Your task to perform on an android device: Clear all items from cart on bestbuy.com. Search for "usb-c to usb-a" on bestbuy.com, select the first entry, add it to the cart, then select checkout. Image 0: 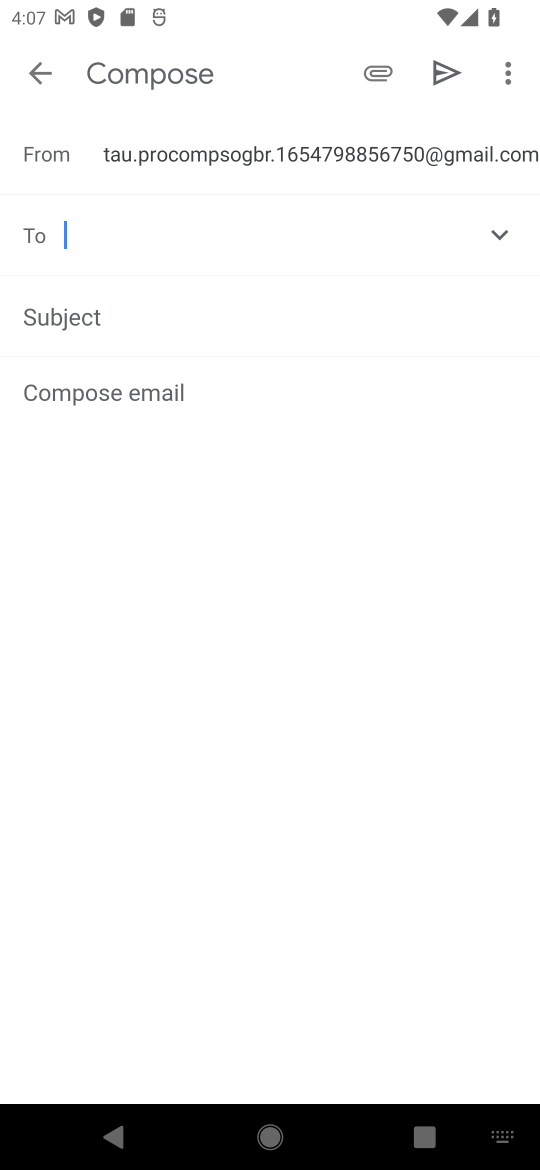
Step 0: press home button
Your task to perform on an android device: Clear all items from cart on bestbuy.com. Search for "usb-c to usb-a" on bestbuy.com, select the first entry, add it to the cart, then select checkout. Image 1: 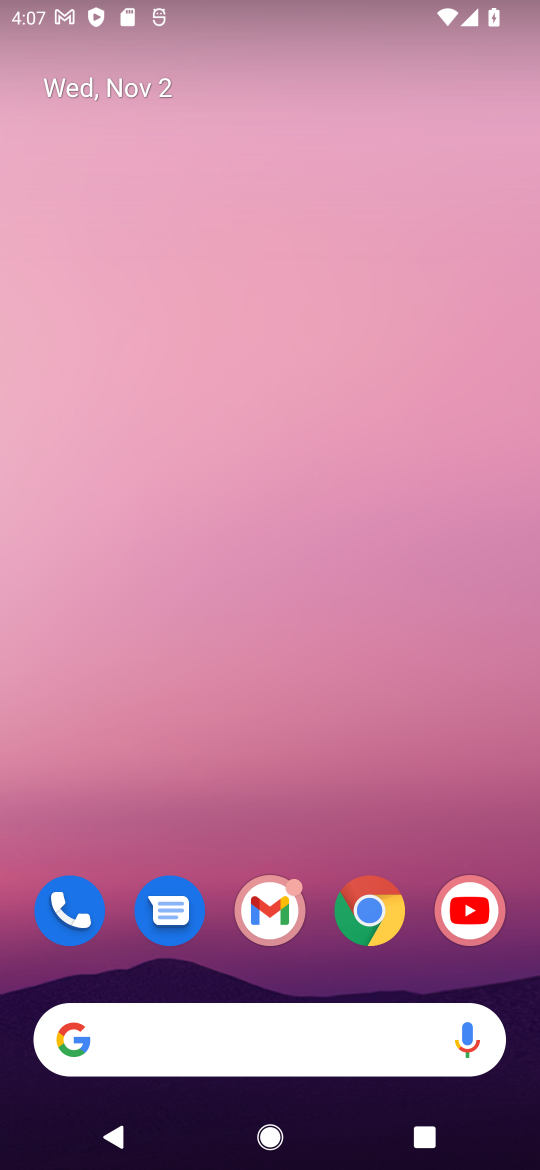
Step 1: click (375, 910)
Your task to perform on an android device: Clear all items from cart on bestbuy.com. Search for "usb-c to usb-a" on bestbuy.com, select the first entry, add it to the cart, then select checkout. Image 2: 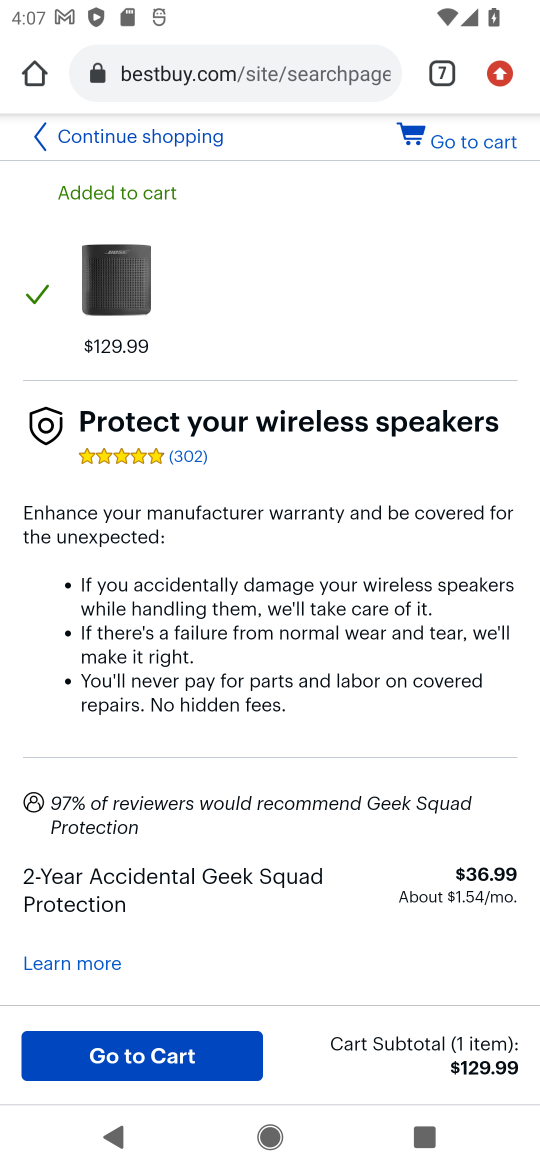
Step 2: click (435, 78)
Your task to perform on an android device: Clear all items from cart on bestbuy.com. Search for "usb-c to usb-a" on bestbuy.com, select the first entry, add it to the cart, then select checkout. Image 3: 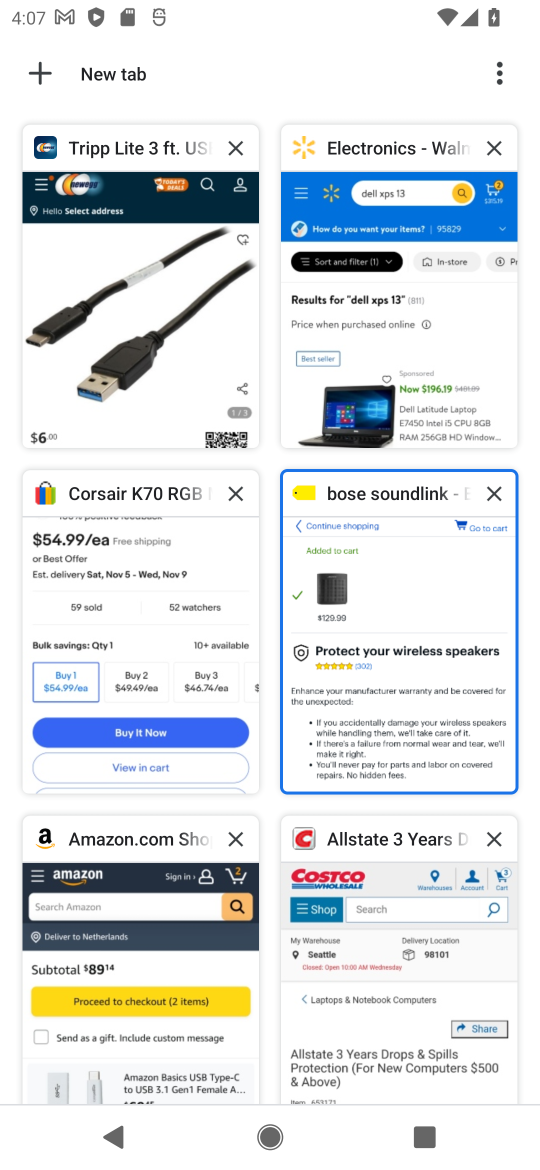
Step 3: click (342, 654)
Your task to perform on an android device: Clear all items from cart on bestbuy.com. Search for "usb-c to usb-a" on bestbuy.com, select the first entry, add it to the cart, then select checkout. Image 4: 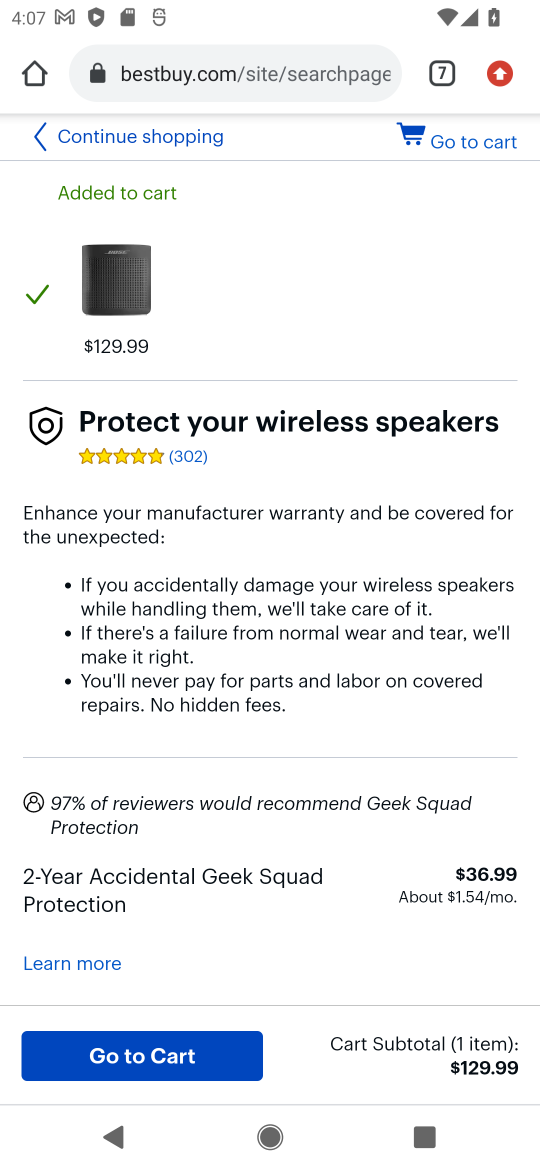
Step 4: click (186, 138)
Your task to perform on an android device: Clear all items from cart on bestbuy.com. Search for "usb-c to usb-a" on bestbuy.com, select the first entry, add it to the cart, then select checkout. Image 5: 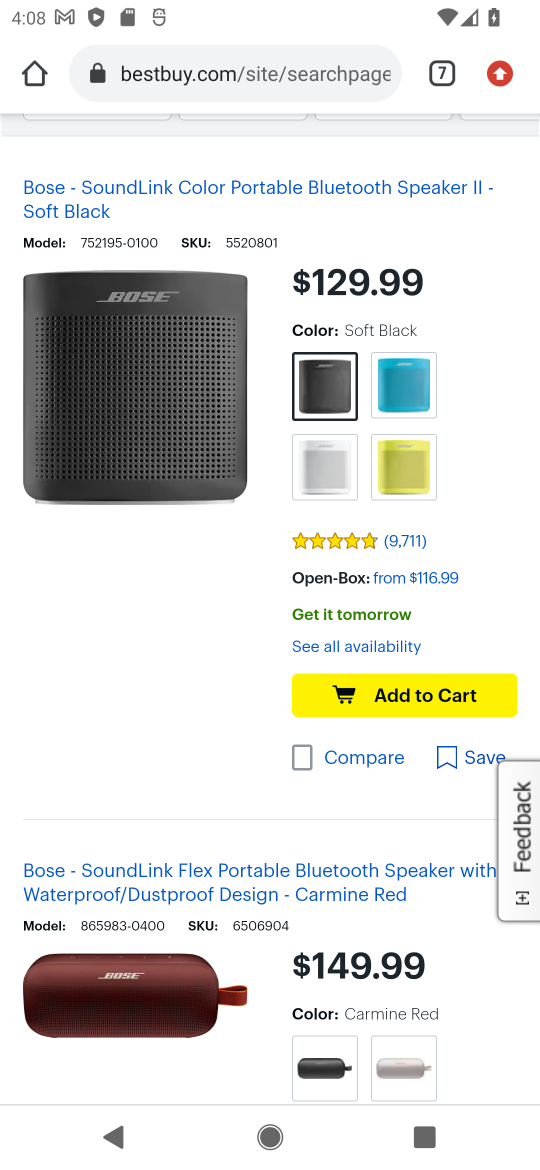
Step 5: drag from (505, 237) to (261, 908)
Your task to perform on an android device: Clear all items from cart on bestbuy.com. Search for "usb-c to usb-a" on bestbuy.com, select the first entry, add it to the cart, then select checkout. Image 6: 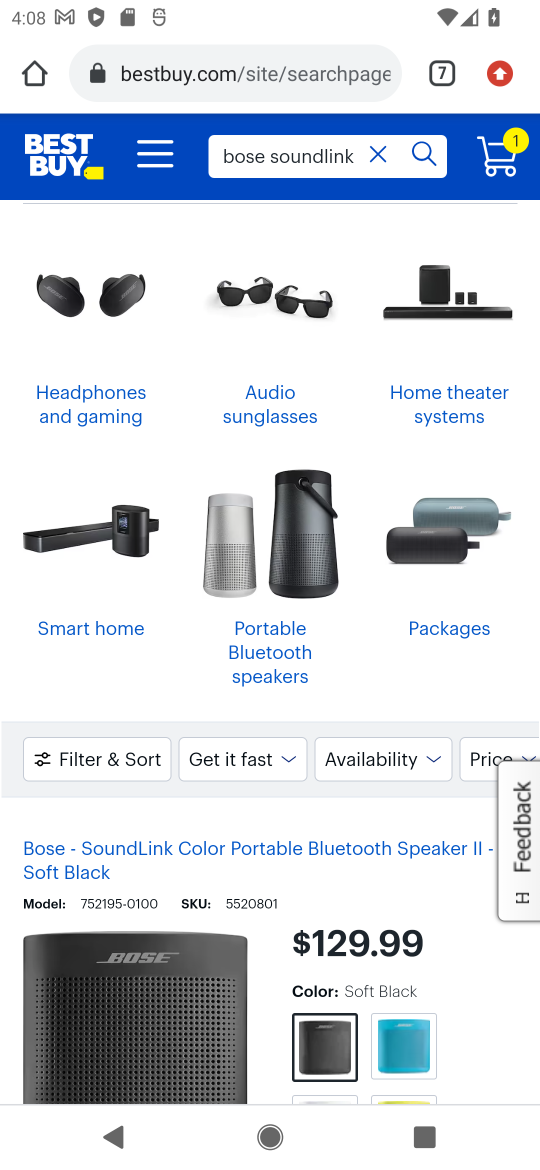
Step 6: click (381, 159)
Your task to perform on an android device: Clear all items from cart on bestbuy.com. Search for "usb-c to usb-a" on bestbuy.com, select the first entry, add it to the cart, then select checkout. Image 7: 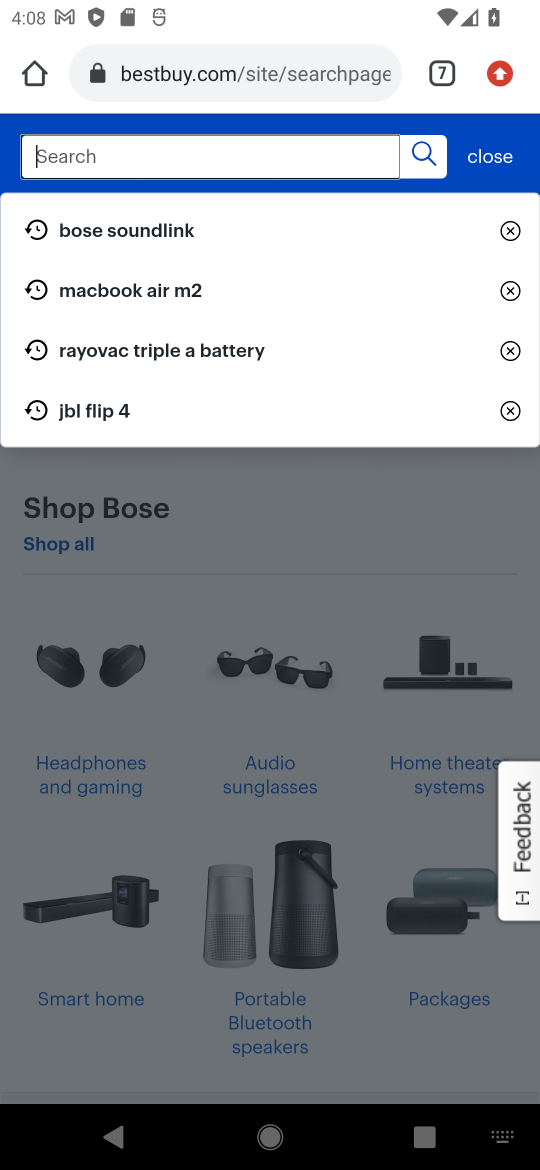
Step 7: type "usb-c to usb-a""
Your task to perform on an android device: Clear all items from cart on bestbuy.com. Search for "usb-c to usb-a" on bestbuy.com, select the first entry, add it to the cart, then select checkout. Image 8: 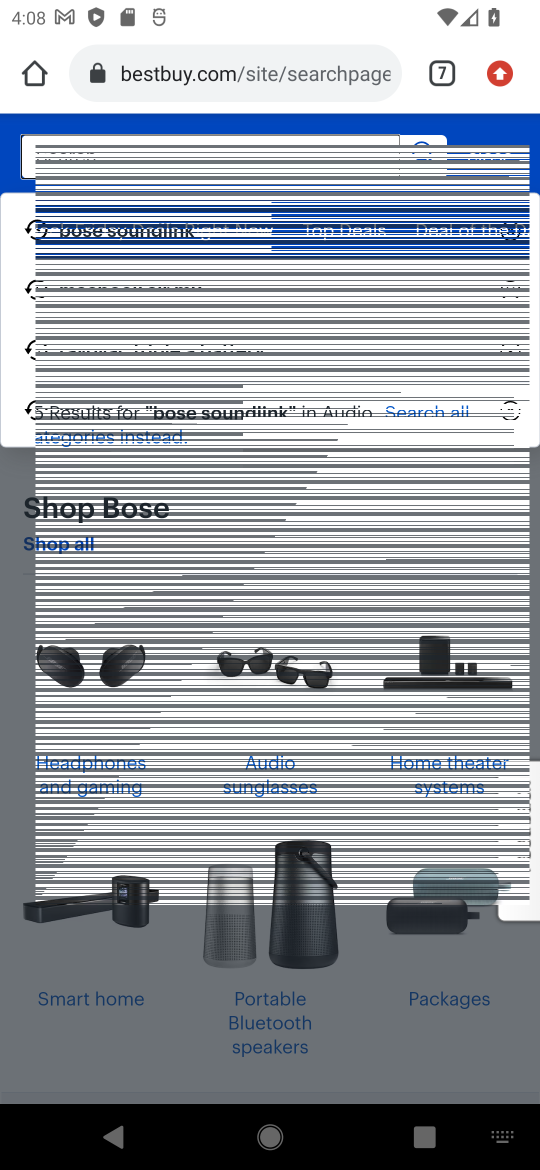
Step 8: click (492, 158)
Your task to perform on an android device: Clear all items from cart on bestbuy.com. Search for "usb-c to usb-a" on bestbuy.com, select the first entry, add it to the cart, then select checkout. Image 9: 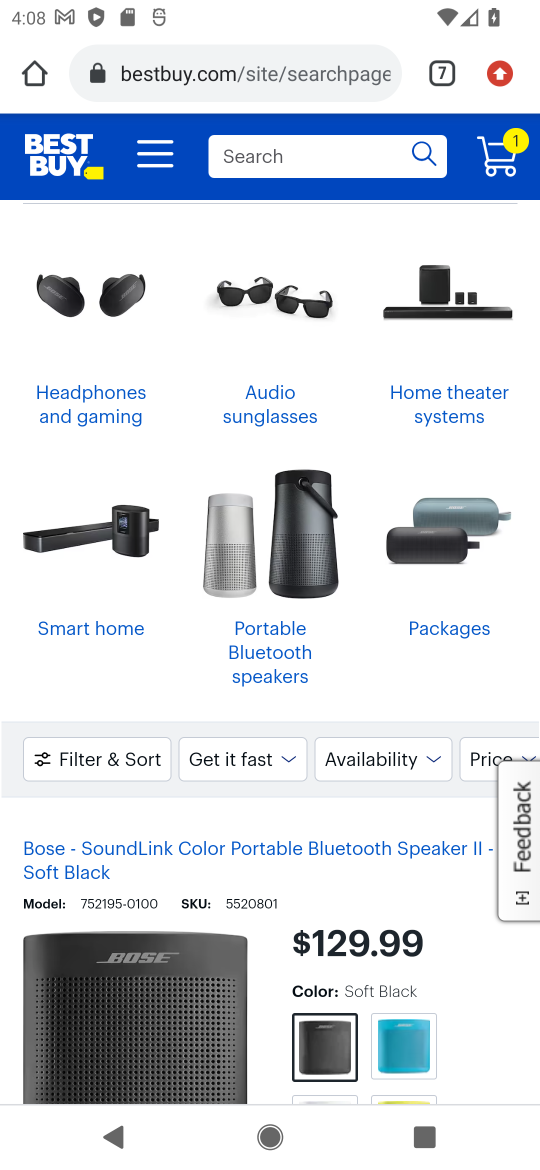
Step 9: click (363, 149)
Your task to perform on an android device: Clear all items from cart on bestbuy.com. Search for "usb-c to usb-a" on bestbuy.com, select the first entry, add it to the cart, then select checkout. Image 10: 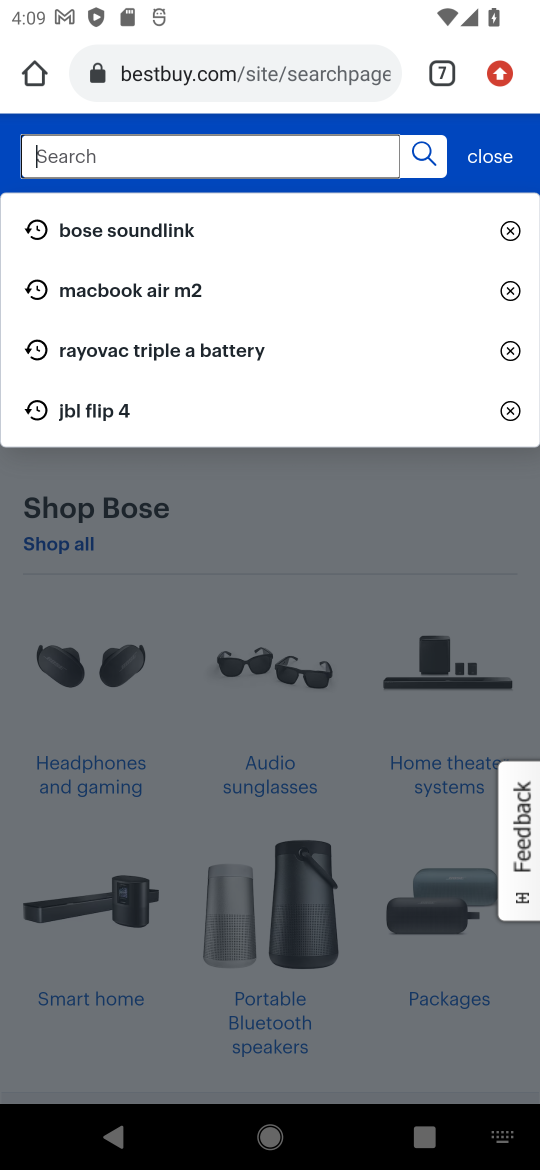
Step 10: type "usb-c"
Your task to perform on an android device: Clear all items from cart on bestbuy.com. Search for "usb-c to usb-a" on bestbuy.com, select the first entry, add it to the cart, then select checkout. Image 11: 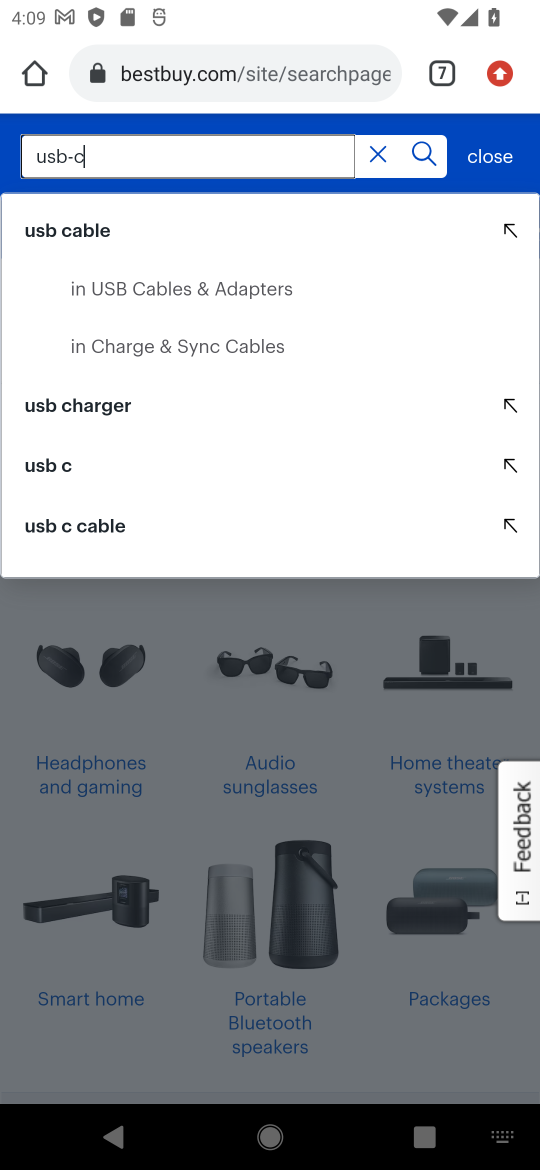
Step 11: click (37, 228)
Your task to perform on an android device: Clear all items from cart on bestbuy.com. Search for "usb-c to usb-a" on bestbuy.com, select the first entry, add it to the cart, then select checkout. Image 12: 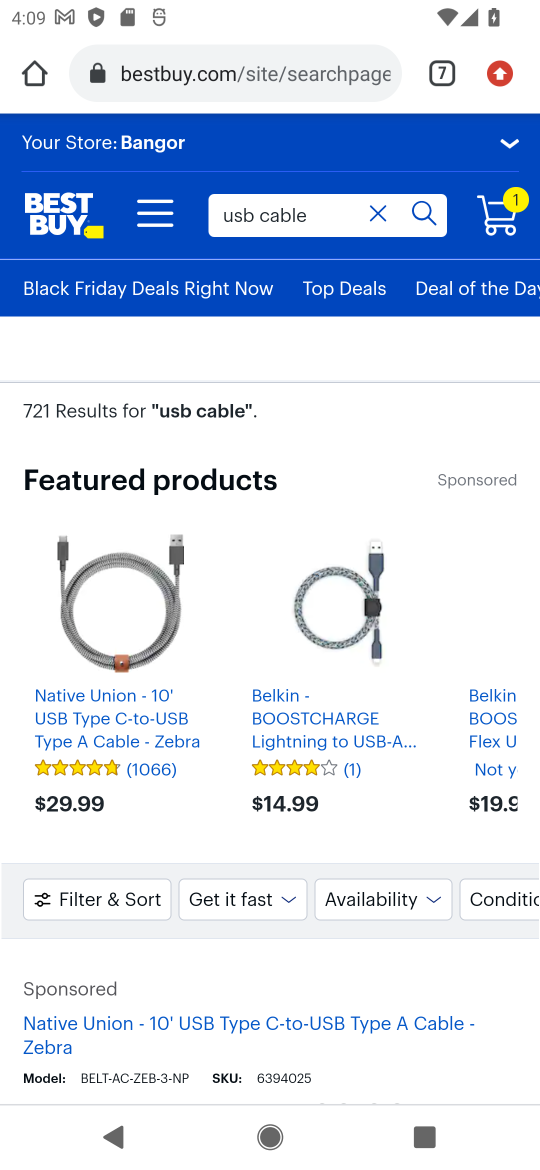
Step 12: click (302, 1024)
Your task to perform on an android device: Clear all items from cart on bestbuy.com. Search for "usb-c to usb-a" on bestbuy.com, select the first entry, add it to the cart, then select checkout. Image 13: 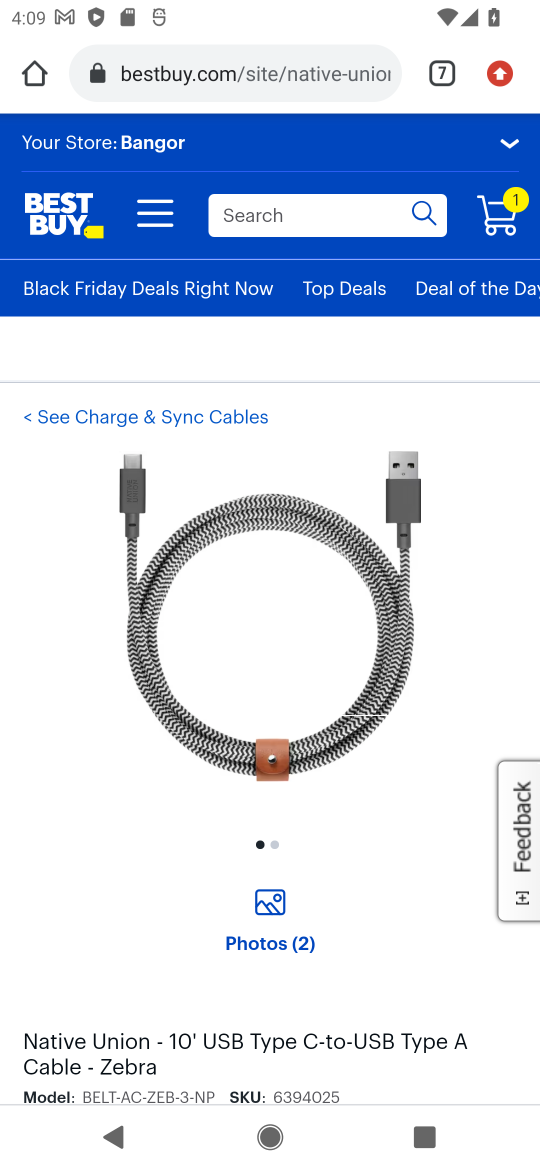
Step 13: drag from (395, 977) to (448, 397)
Your task to perform on an android device: Clear all items from cart on bestbuy.com. Search for "usb-c to usb-a" on bestbuy.com, select the first entry, add it to the cart, then select checkout. Image 14: 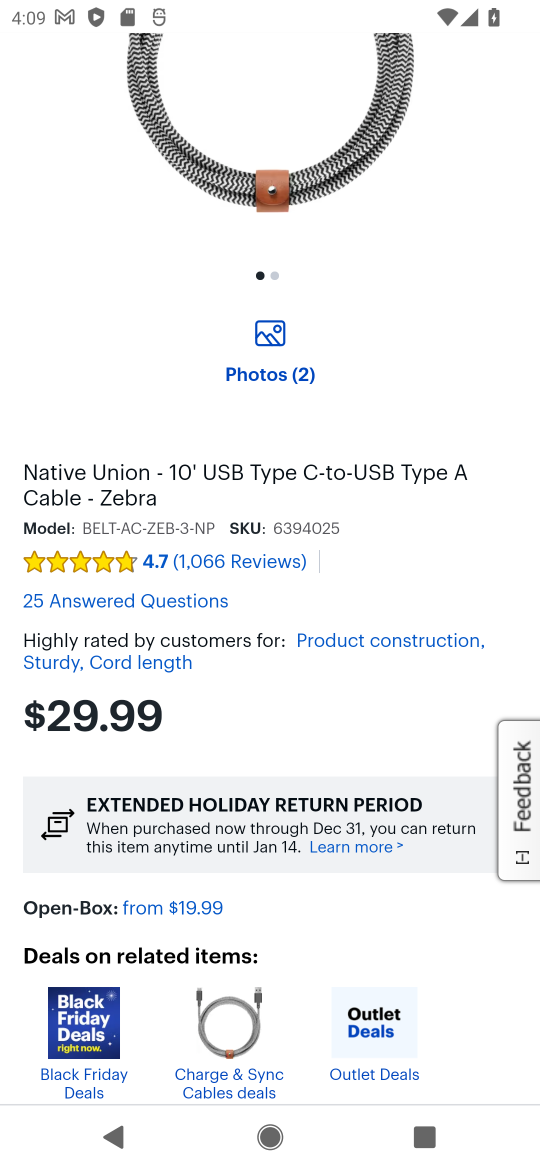
Step 14: drag from (317, 869) to (397, 435)
Your task to perform on an android device: Clear all items from cart on bestbuy.com. Search for "usb-c to usb-a" on bestbuy.com, select the first entry, add it to the cart, then select checkout. Image 15: 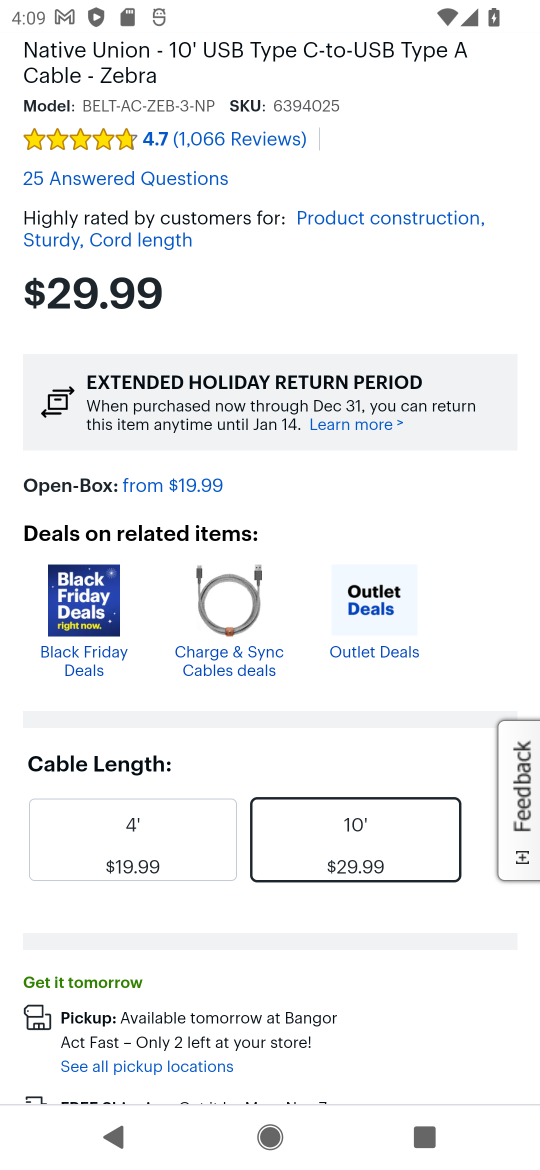
Step 15: drag from (322, 946) to (355, 213)
Your task to perform on an android device: Clear all items from cart on bestbuy.com. Search for "usb-c to usb-a" on bestbuy.com, select the first entry, add it to the cart, then select checkout. Image 16: 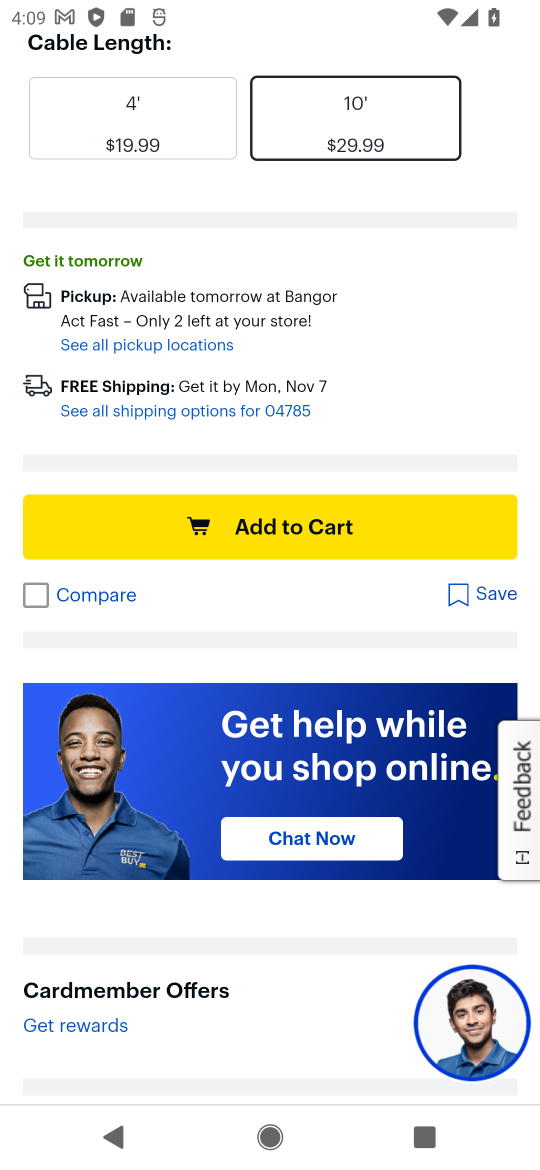
Step 16: click (330, 528)
Your task to perform on an android device: Clear all items from cart on bestbuy.com. Search for "usb-c to usb-a" on bestbuy.com, select the first entry, add it to the cart, then select checkout. Image 17: 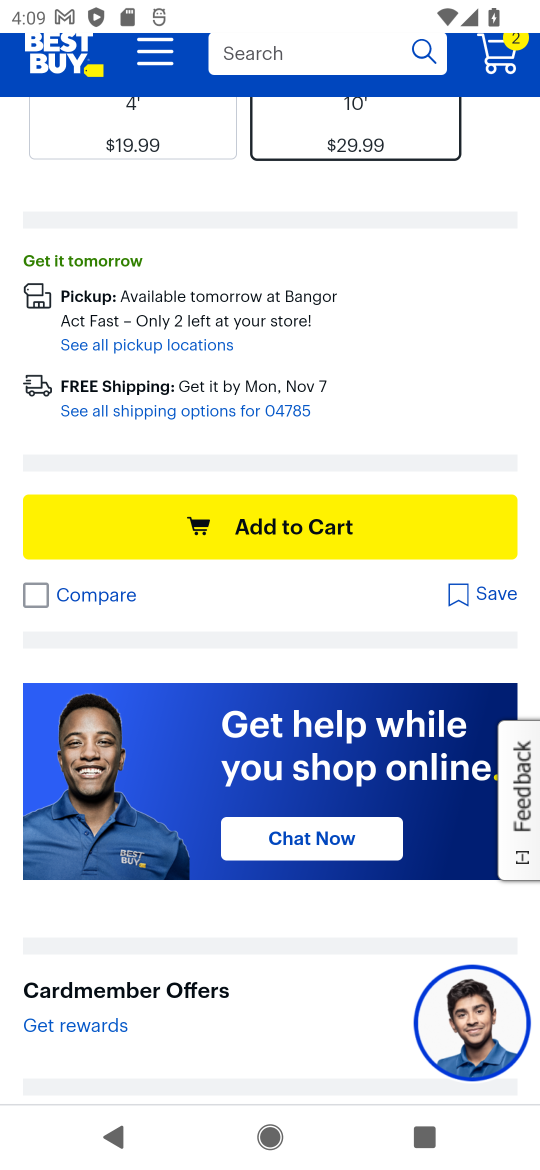
Step 17: task complete